Your task to perform on an android device: change timer sound Image 0: 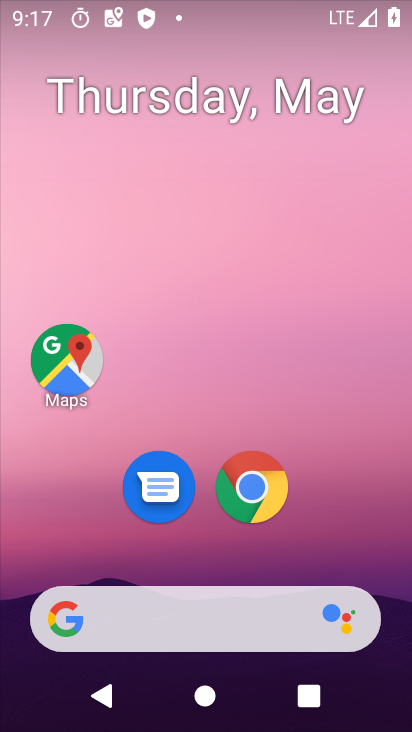
Step 0: drag from (258, 590) to (275, 208)
Your task to perform on an android device: change timer sound Image 1: 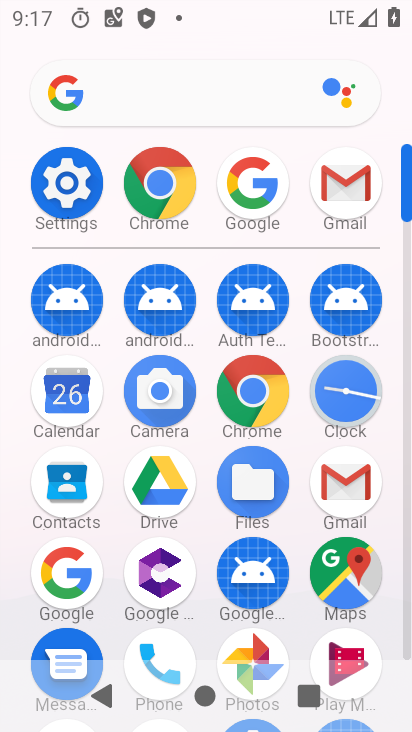
Step 1: click (75, 176)
Your task to perform on an android device: change timer sound Image 2: 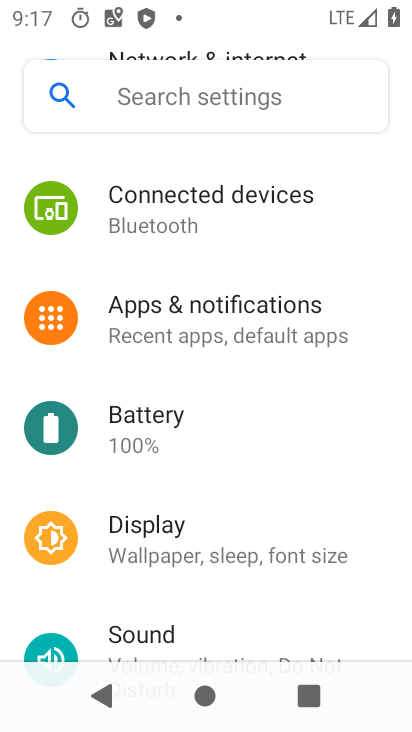
Step 2: press home button
Your task to perform on an android device: change timer sound Image 3: 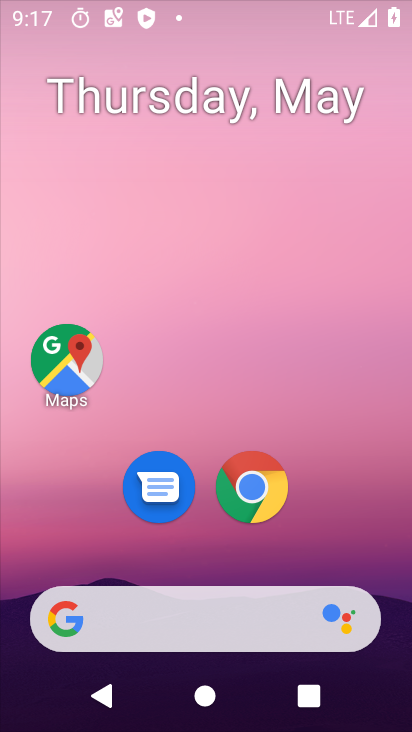
Step 3: drag from (234, 600) to (411, 23)
Your task to perform on an android device: change timer sound Image 4: 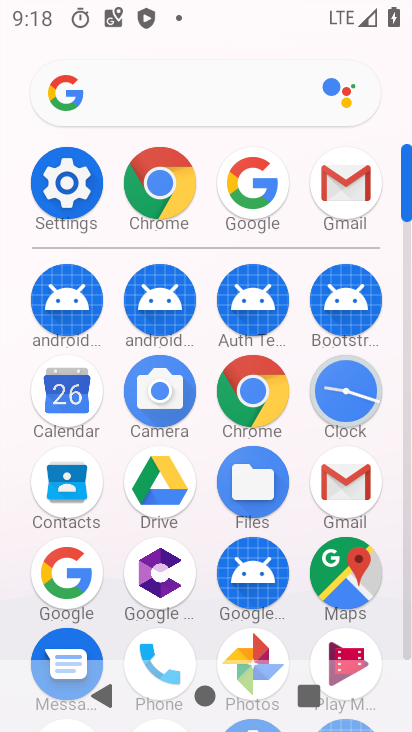
Step 4: click (348, 402)
Your task to perform on an android device: change timer sound Image 5: 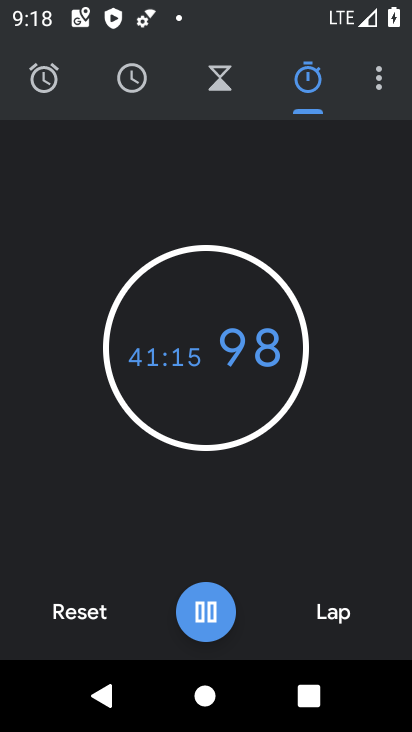
Step 5: click (347, 401)
Your task to perform on an android device: change timer sound Image 6: 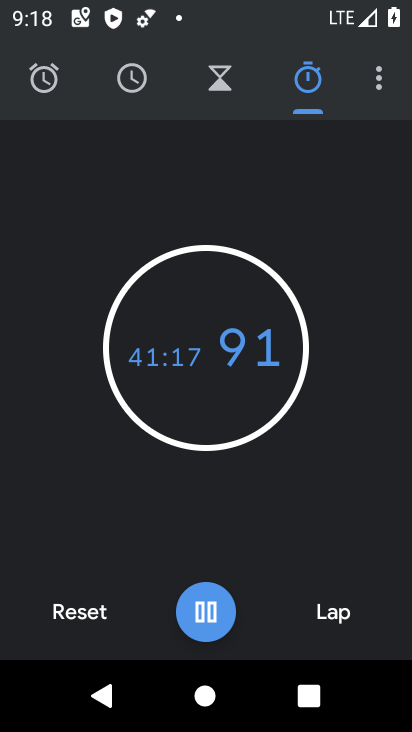
Step 6: click (382, 79)
Your task to perform on an android device: change timer sound Image 7: 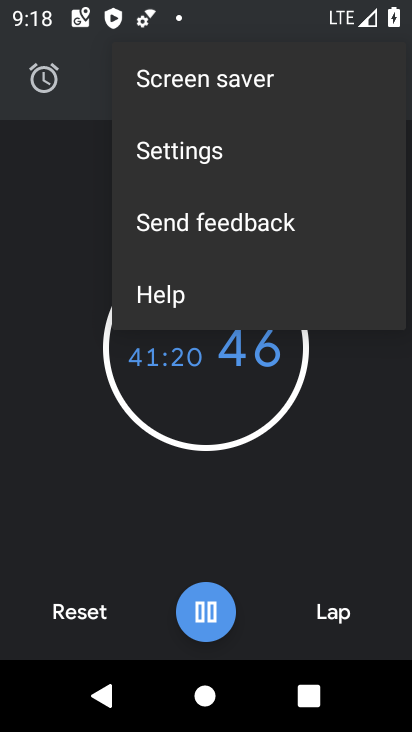
Step 7: click (217, 158)
Your task to perform on an android device: change timer sound Image 8: 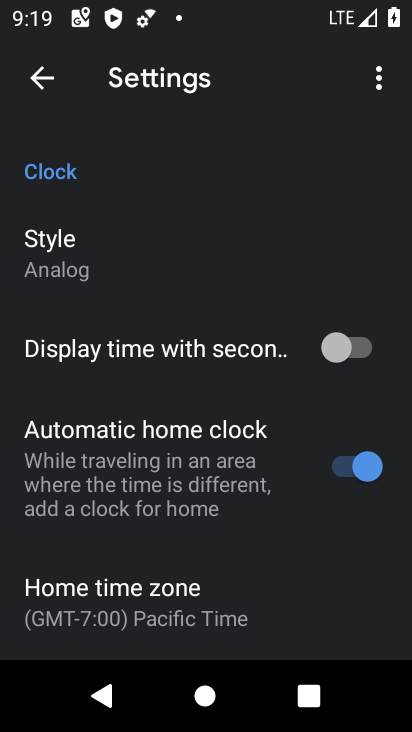
Step 8: drag from (283, 470) to (400, 23)
Your task to perform on an android device: change timer sound Image 9: 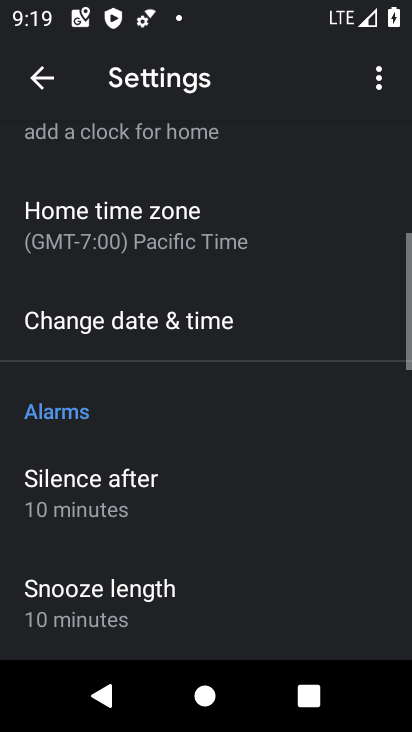
Step 9: drag from (270, 507) to (317, 264)
Your task to perform on an android device: change timer sound Image 10: 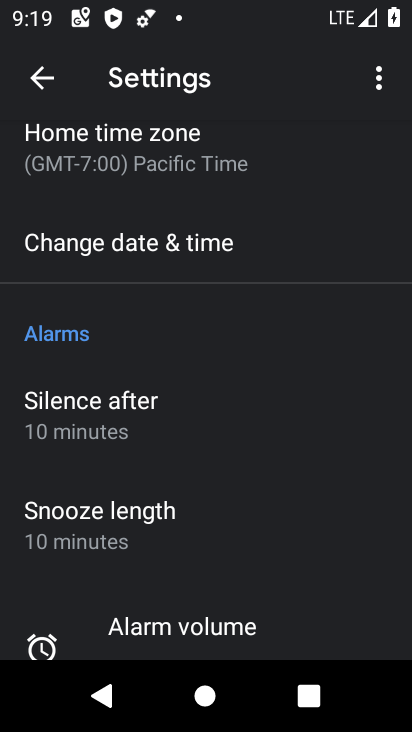
Step 10: drag from (143, 478) to (291, 10)
Your task to perform on an android device: change timer sound Image 11: 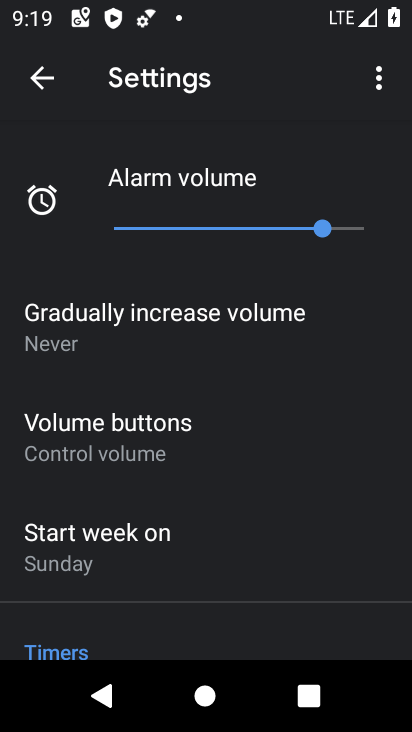
Step 11: drag from (197, 526) to (261, 17)
Your task to perform on an android device: change timer sound Image 12: 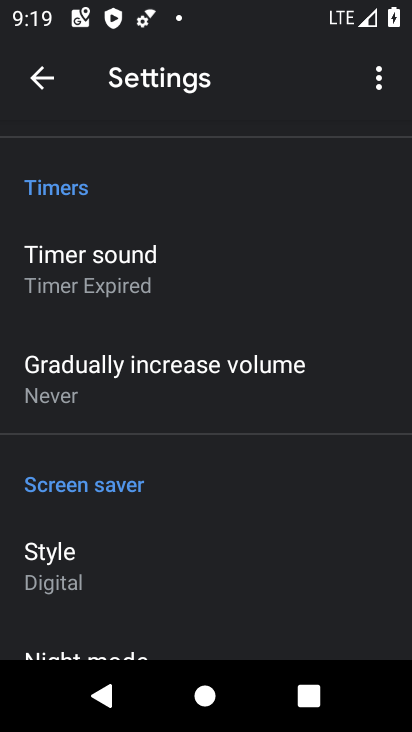
Step 12: click (154, 283)
Your task to perform on an android device: change timer sound Image 13: 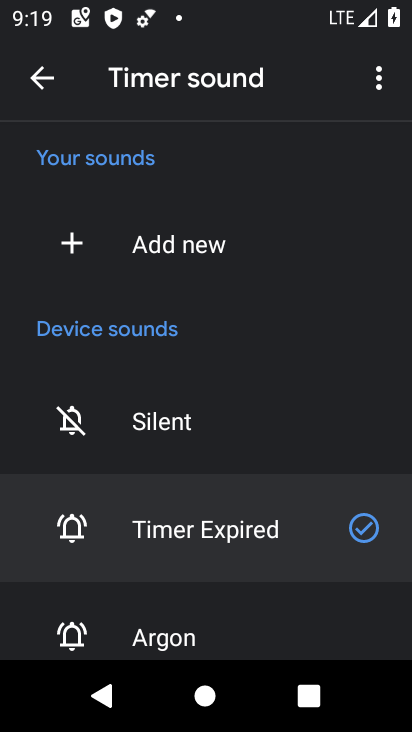
Step 13: click (206, 621)
Your task to perform on an android device: change timer sound Image 14: 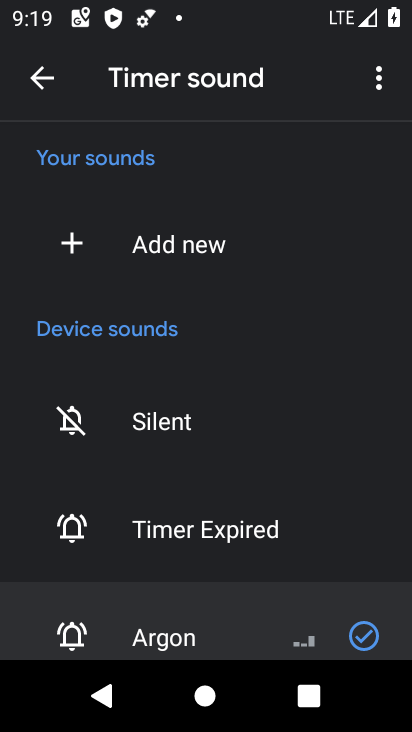
Step 14: task complete